Your task to perform on an android device: check android version Image 0: 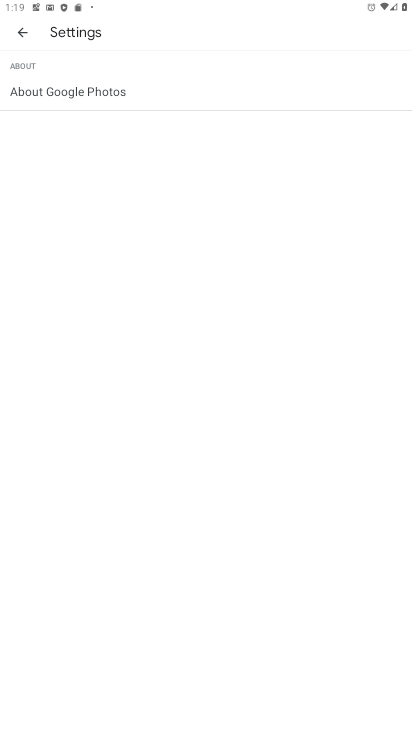
Step 0: press home button
Your task to perform on an android device: check android version Image 1: 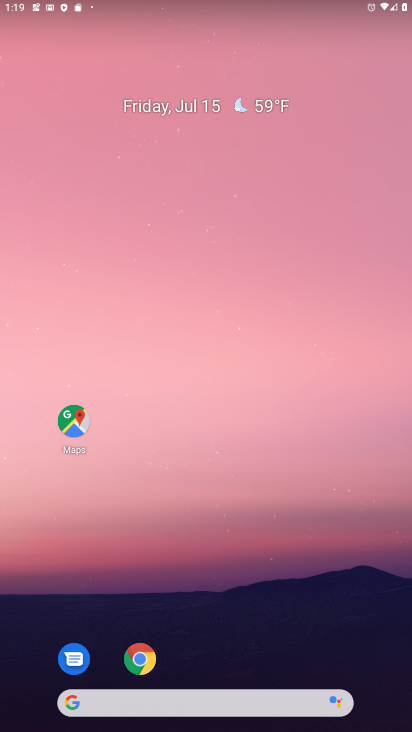
Step 1: drag from (234, 627) to (217, 245)
Your task to perform on an android device: check android version Image 2: 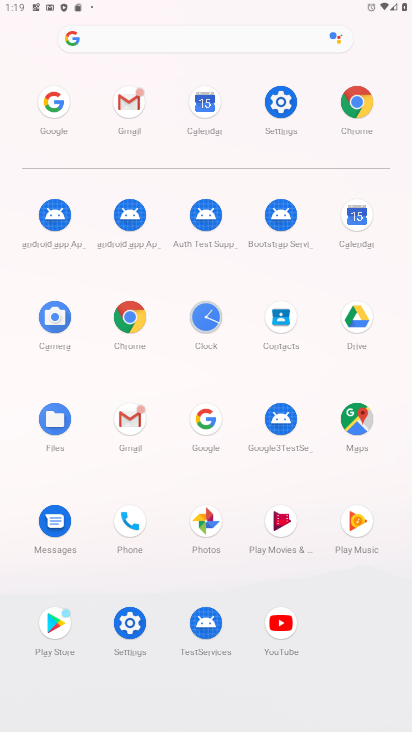
Step 2: click (279, 102)
Your task to perform on an android device: check android version Image 3: 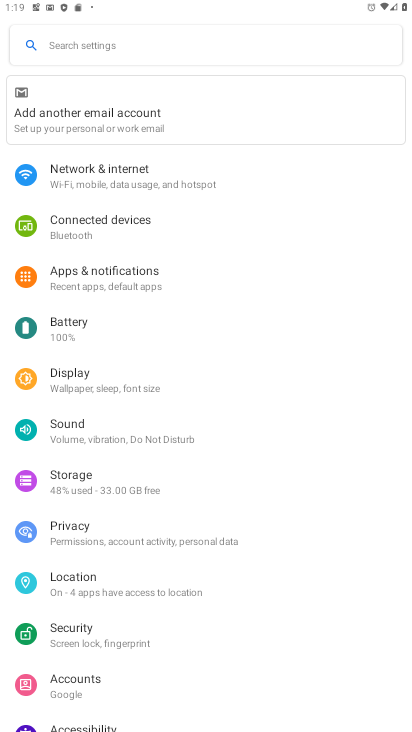
Step 3: drag from (154, 672) to (167, 374)
Your task to perform on an android device: check android version Image 4: 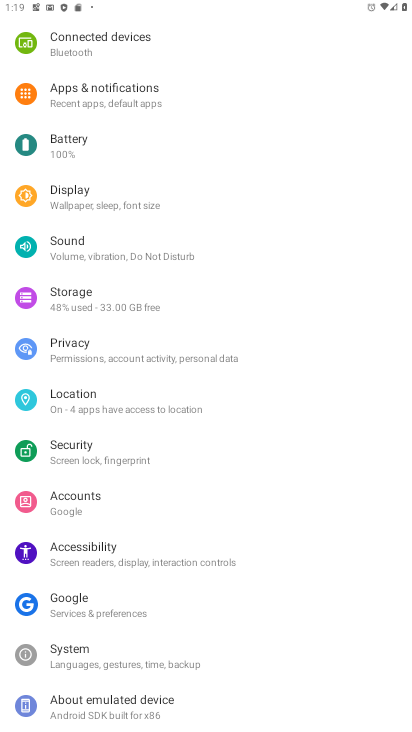
Step 4: click (159, 708)
Your task to perform on an android device: check android version Image 5: 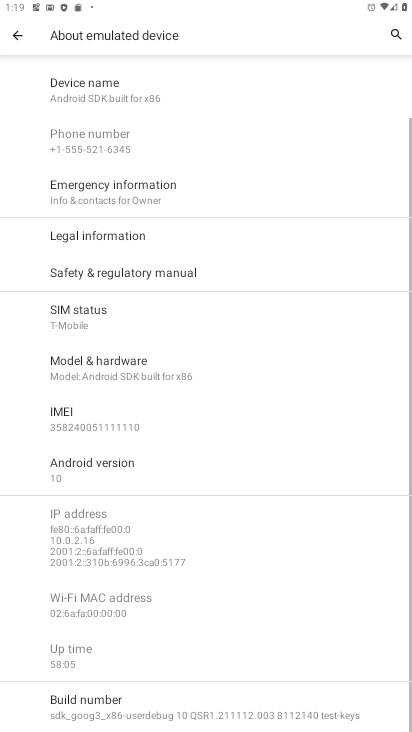
Step 5: click (115, 461)
Your task to perform on an android device: check android version Image 6: 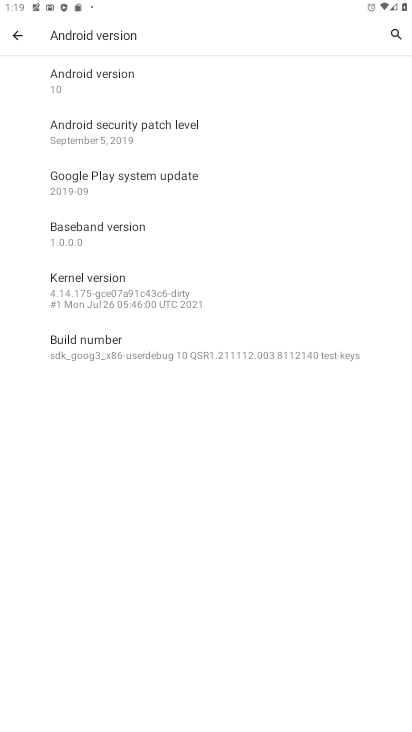
Step 6: task complete